Your task to perform on an android device: make emails show in primary in the gmail app Image 0: 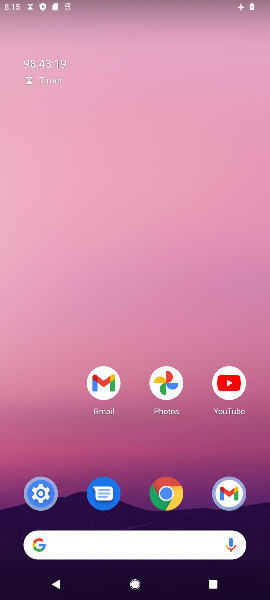
Step 0: drag from (112, 505) to (122, 150)
Your task to perform on an android device: make emails show in primary in the gmail app Image 1: 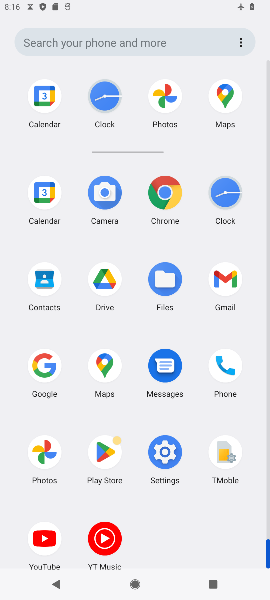
Step 1: click (221, 271)
Your task to perform on an android device: make emails show in primary in the gmail app Image 2: 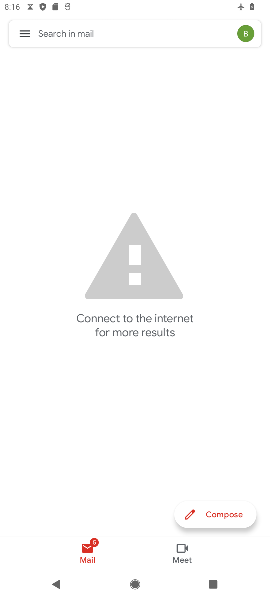
Step 2: click (27, 31)
Your task to perform on an android device: make emails show in primary in the gmail app Image 3: 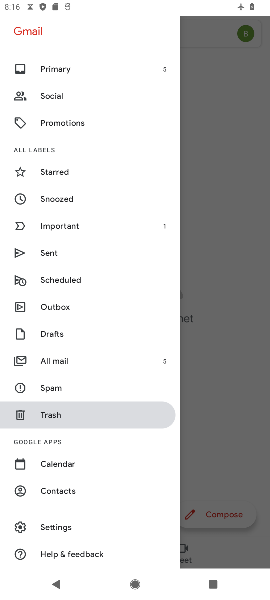
Step 3: click (51, 523)
Your task to perform on an android device: make emails show in primary in the gmail app Image 4: 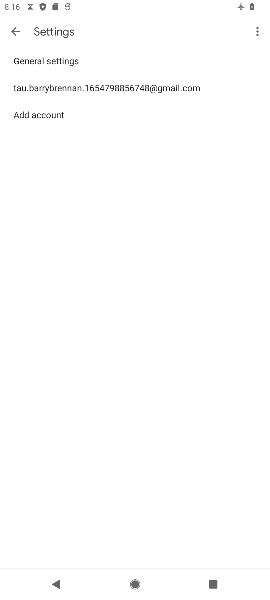
Step 4: click (102, 91)
Your task to perform on an android device: make emails show in primary in the gmail app Image 5: 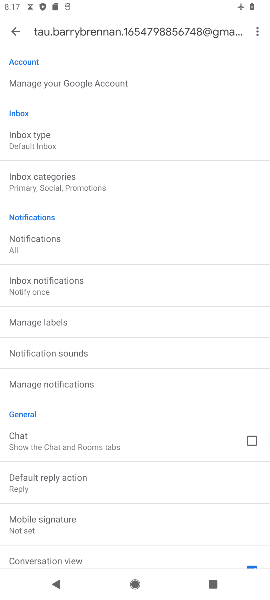
Step 5: task complete